Your task to perform on an android device: see sites visited before in the chrome app Image 0: 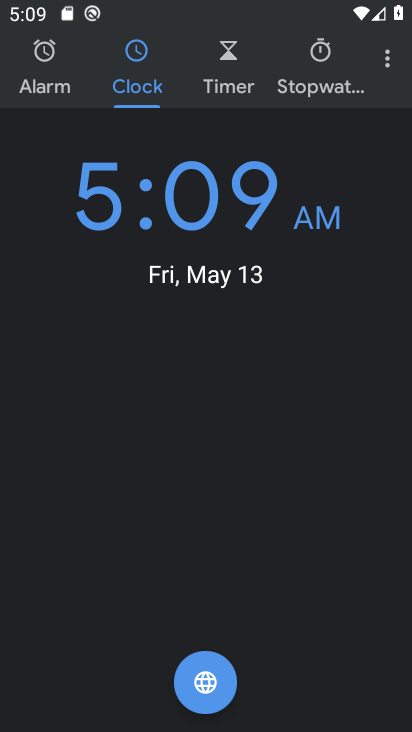
Step 0: press home button
Your task to perform on an android device: see sites visited before in the chrome app Image 1: 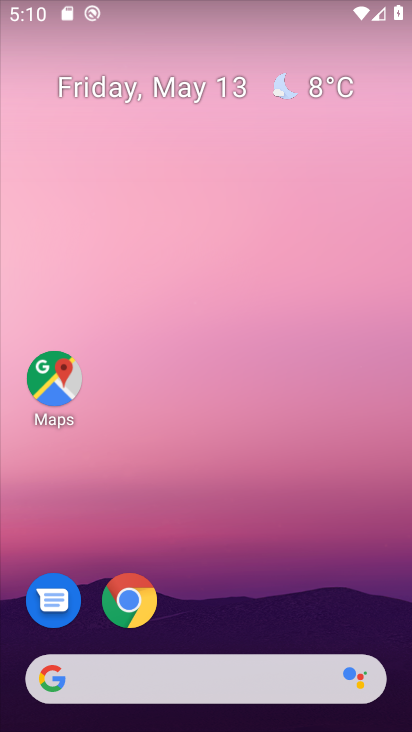
Step 1: click (153, 600)
Your task to perform on an android device: see sites visited before in the chrome app Image 2: 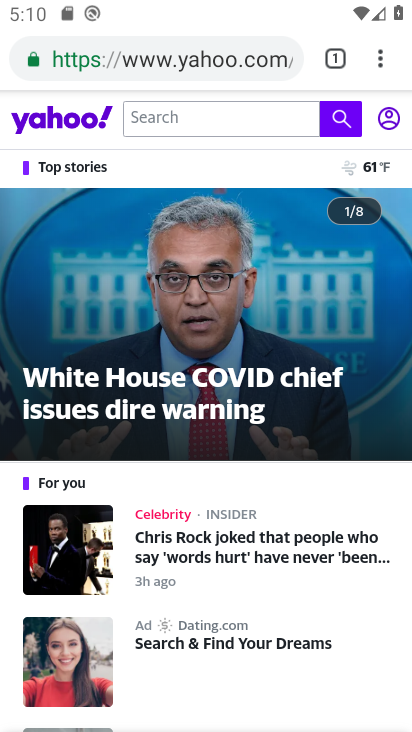
Step 2: click (375, 58)
Your task to perform on an android device: see sites visited before in the chrome app Image 3: 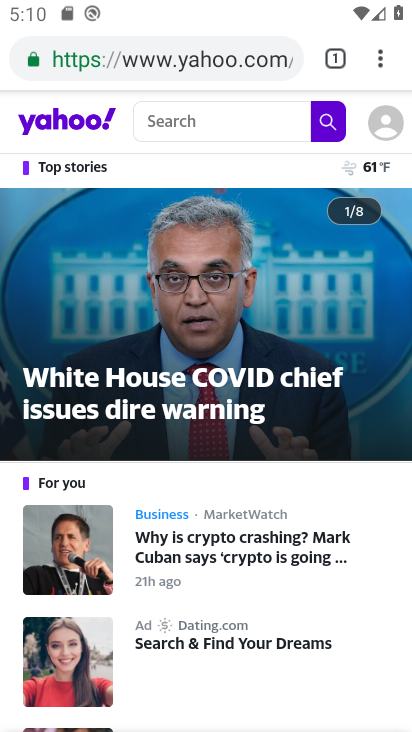
Step 3: click (371, 75)
Your task to perform on an android device: see sites visited before in the chrome app Image 4: 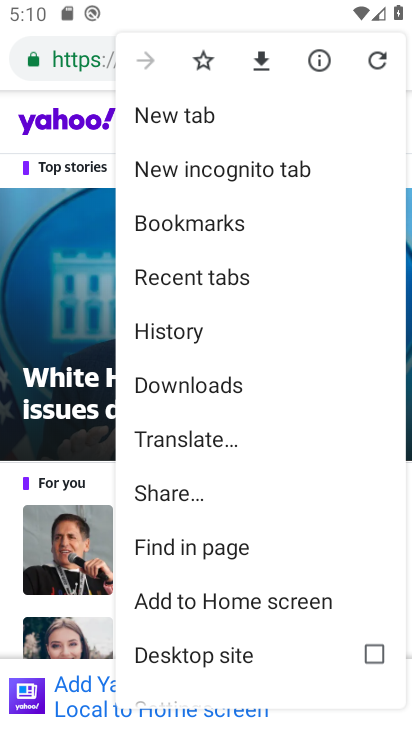
Step 4: click (190, 269)
Your task to perform on an android device: see sites visited before in the chrome app Image 5: 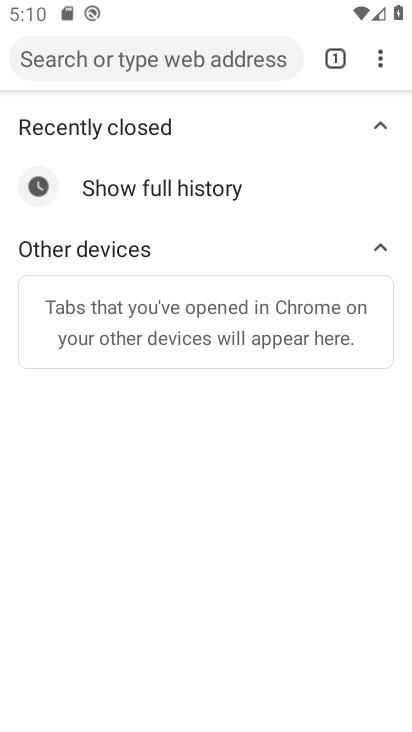
Step 5: task complete